Your task to perform on an android device: Open sound settings Image 0: 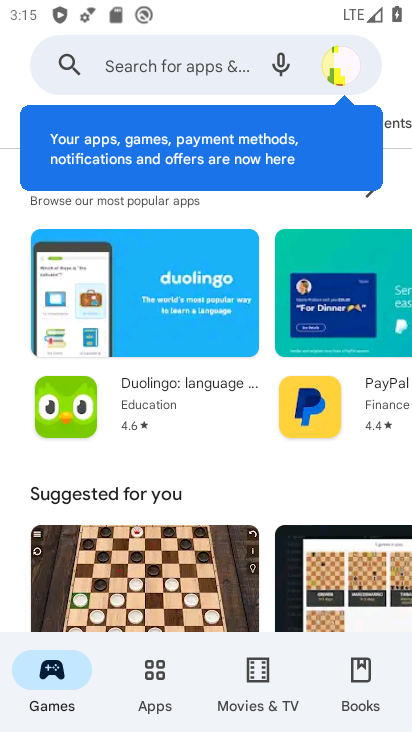
Step 0: press home button
Your task to perform on an android device: Open sound settings Image 1: 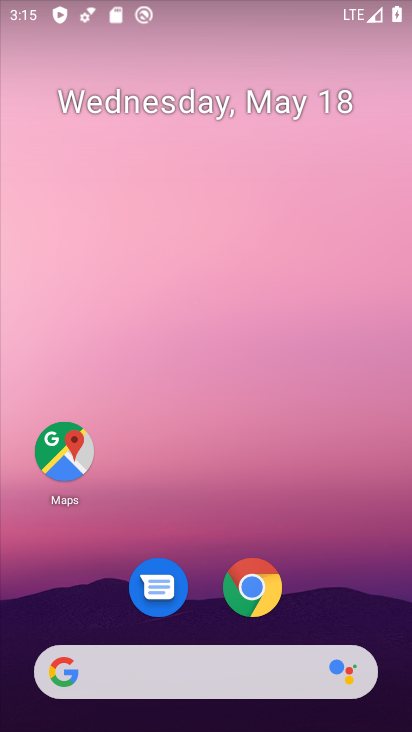
Step 1: drag from (209, 656) to (273, 127)
Your task to perform on an android device: Open sound settings Image 2: 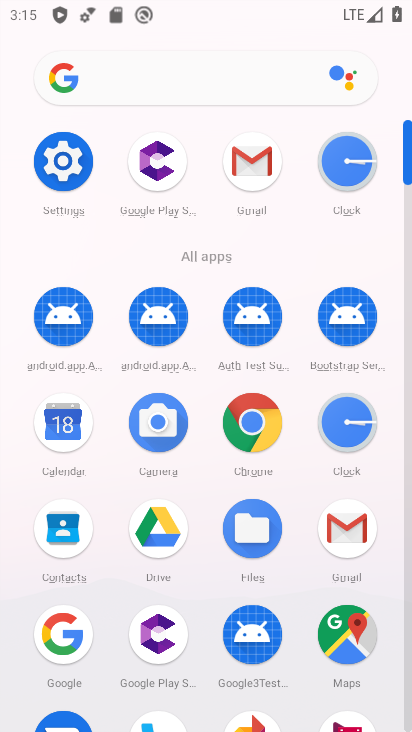
Step 2: click (75, 173)
Your task to perform on an android device: Open sound settings Image 3: 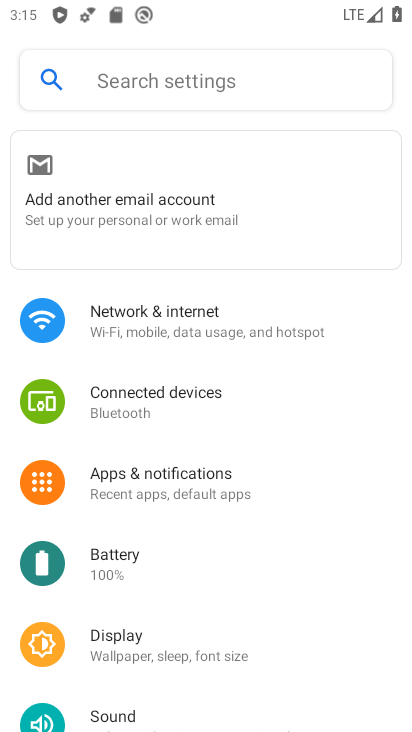
Step 3: drag from (210, 652) to (274, 454)
Your task to perform on an android device: Open sound settings Image 4: 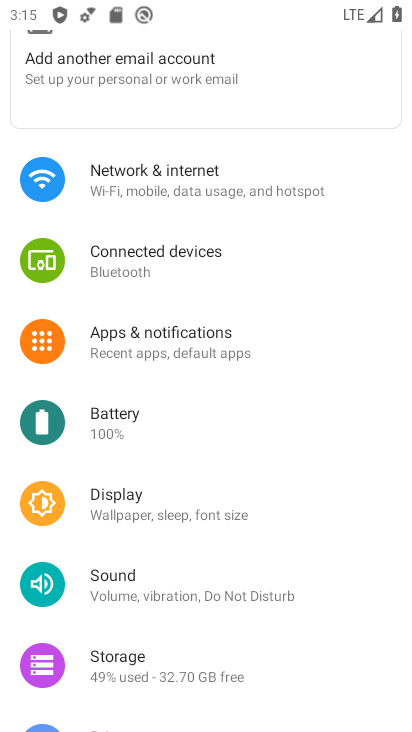
Step 4: click (89, 585)
Your task to perform on an android device: Open sound settings Image 5: 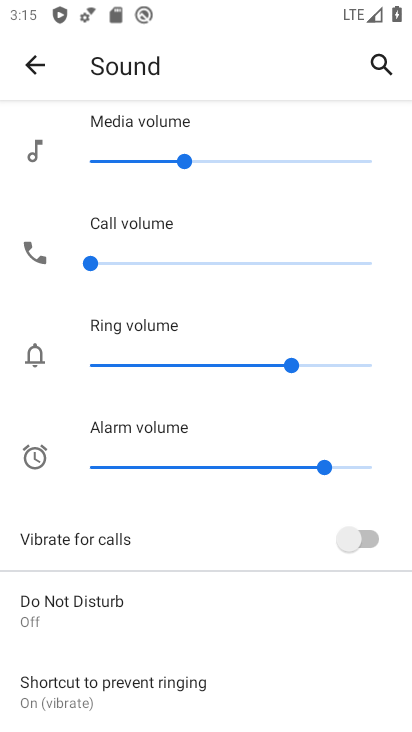
Step 5: task complete